Your task to perform on an android device: Open the Play Movies app and select the watchlist tab. Image 0: 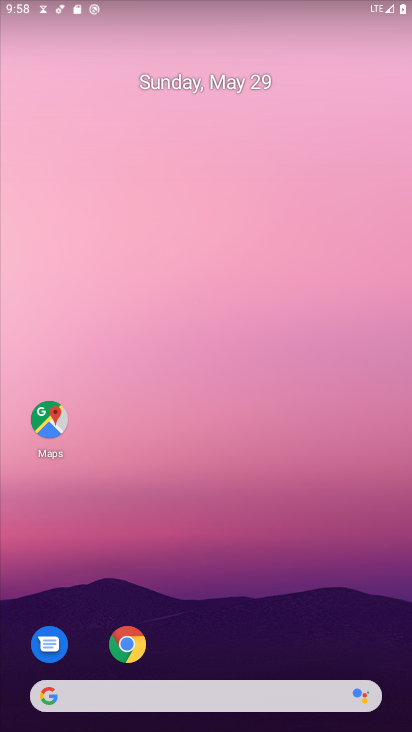
Step 0: drag from (91, 727) to (102, 75)
Your task to perform on an android device: Open the Play Movies app and select the watchlist tab. Image 1: 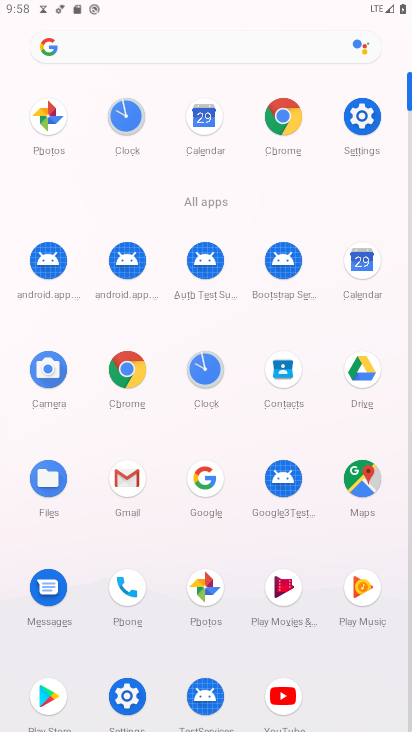
Step 1: click (286, 587)
Your task to perform on an android device: Open the Play Movies app and select the watchlist tab. Image 2: 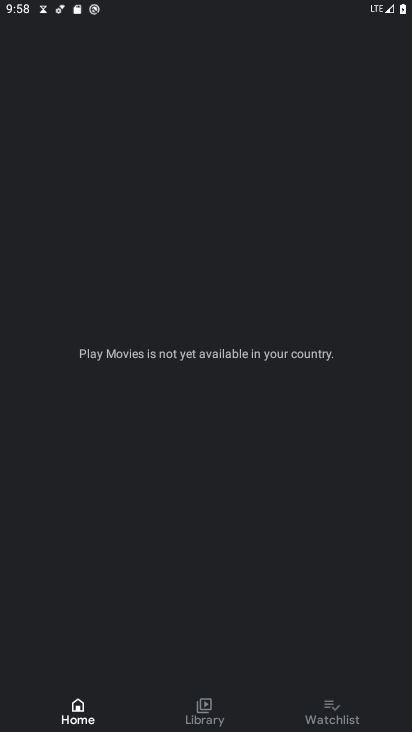
Step 2: click (338, 721)
Your task to perform on an android device: Open the Play Movies app and select the watchlist tab. Image 3: 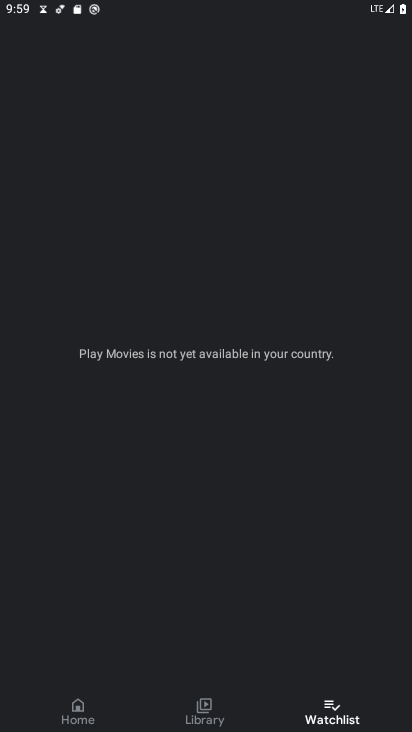
Step 3: task complete